Your task to perform on an android device: open app "DoorDash - Dasher" (install if not already installed) and go to login screen Image 0: 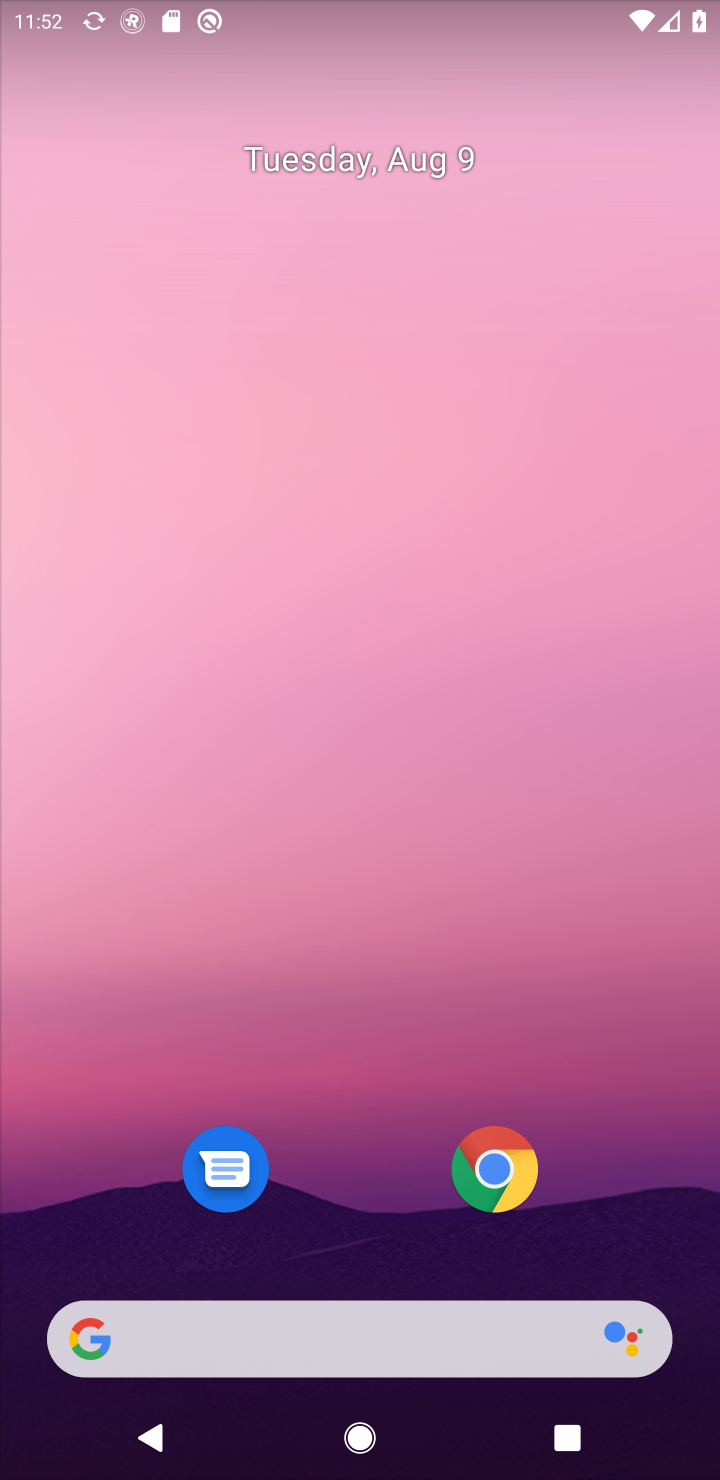
Step 0: press home button
Your task to perform on an android device: open app "DoorDash - Dasher" (install if not already installed) and go to login screen Image 1: 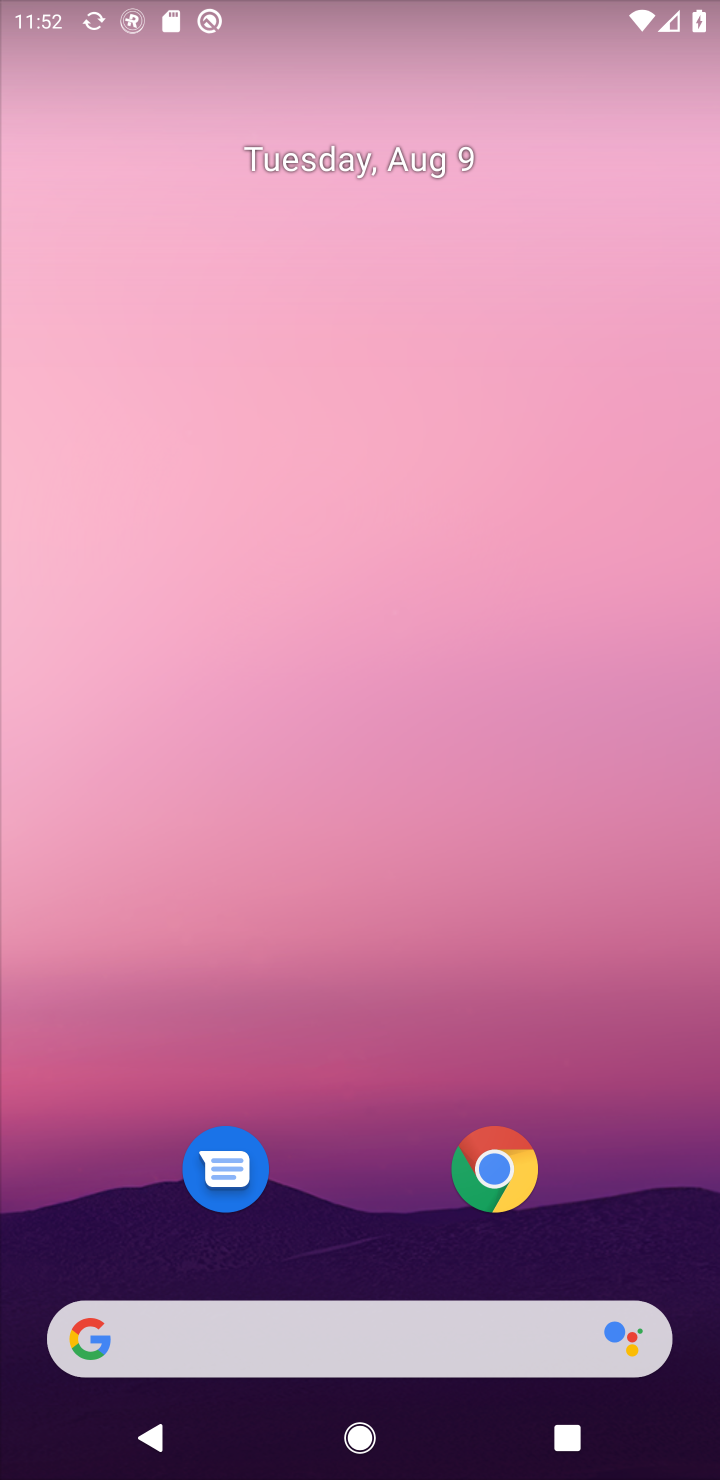
Step 1: drag from (645, 1129) to (640, 109)
Your task to perform on an android device: open app "DoorDash - Dasher" (install if not already installed) and go to login screen Image 2: 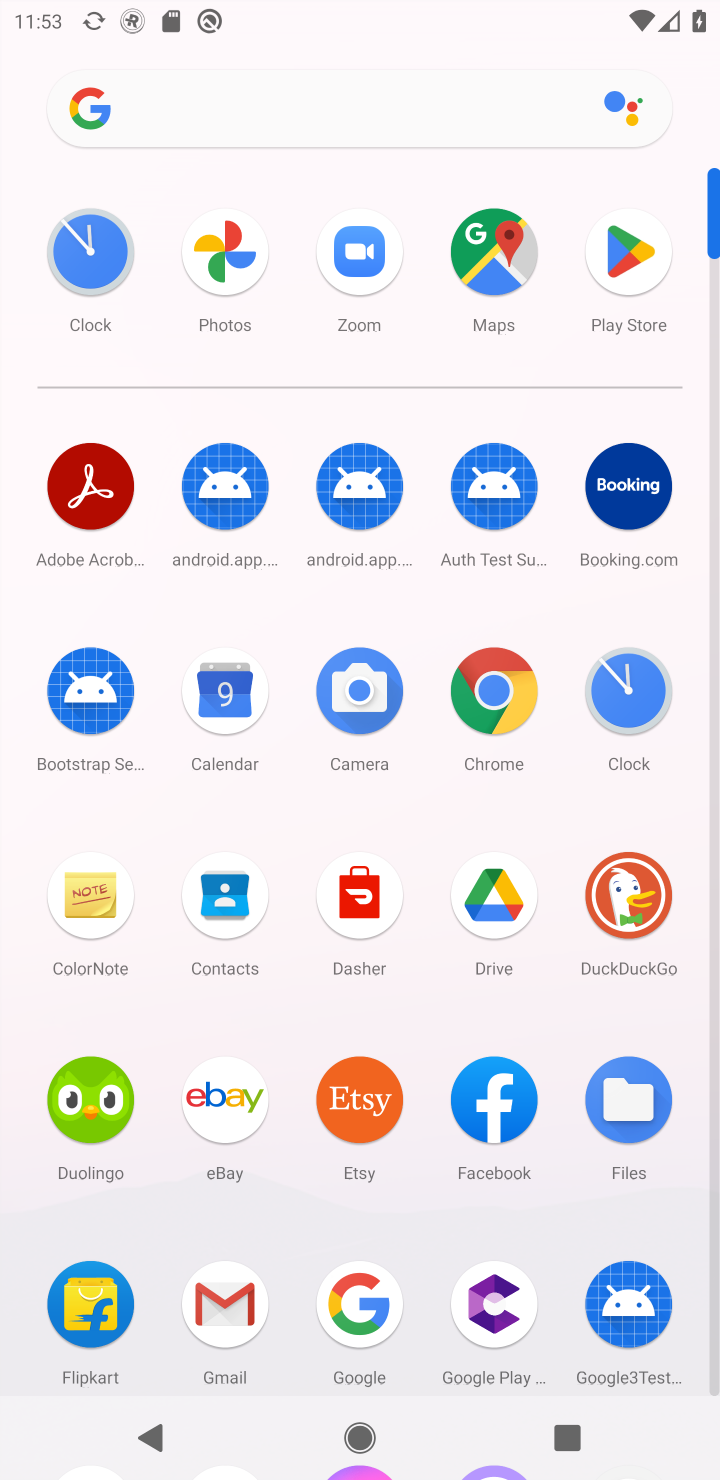
Step 2: click (628, 254)
Your task to perform on an android device: open app "DoorDash - Dasher" (install if not already installed) and go to login screen Image 3: 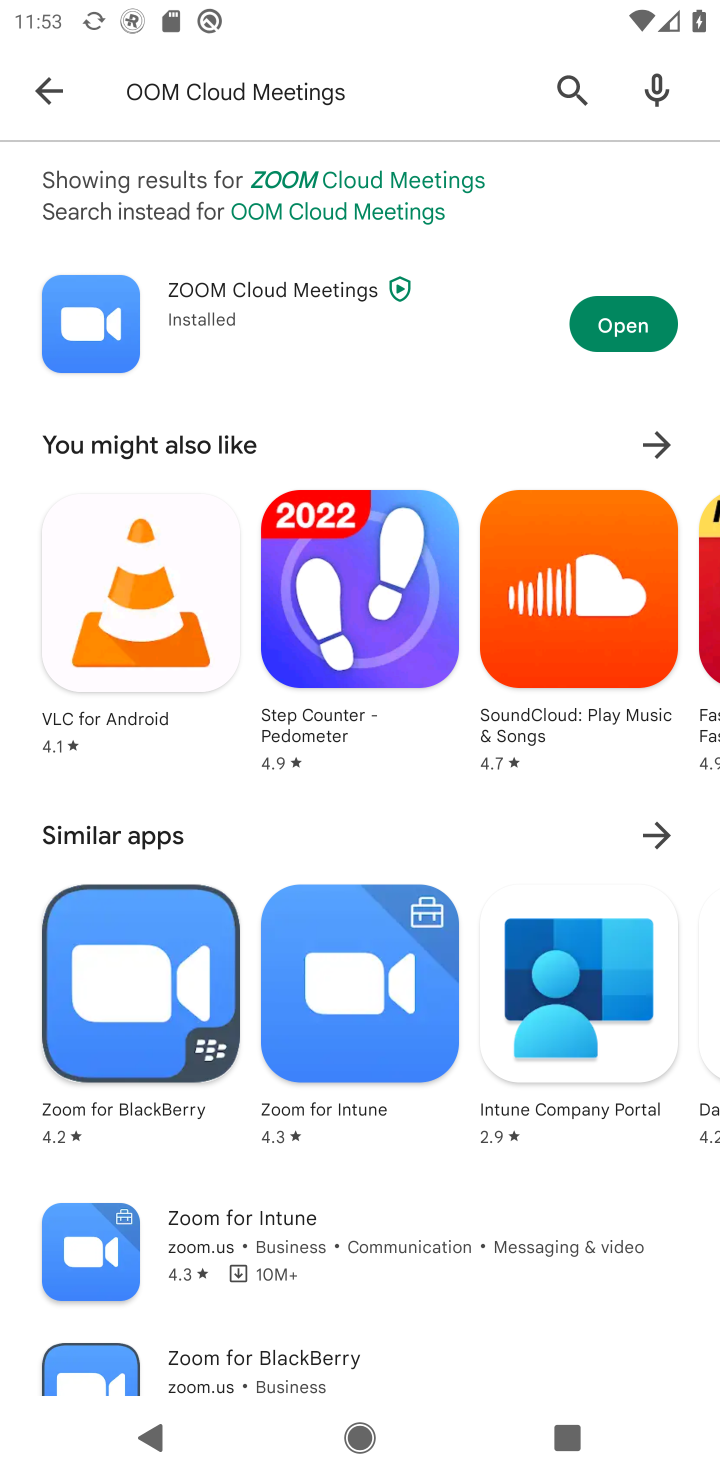
Step 3: click (569, 83)
Your task to perform on an android device: open app "DoorDash - Dasher" (install if not already installed) and go to login screen Image 4: 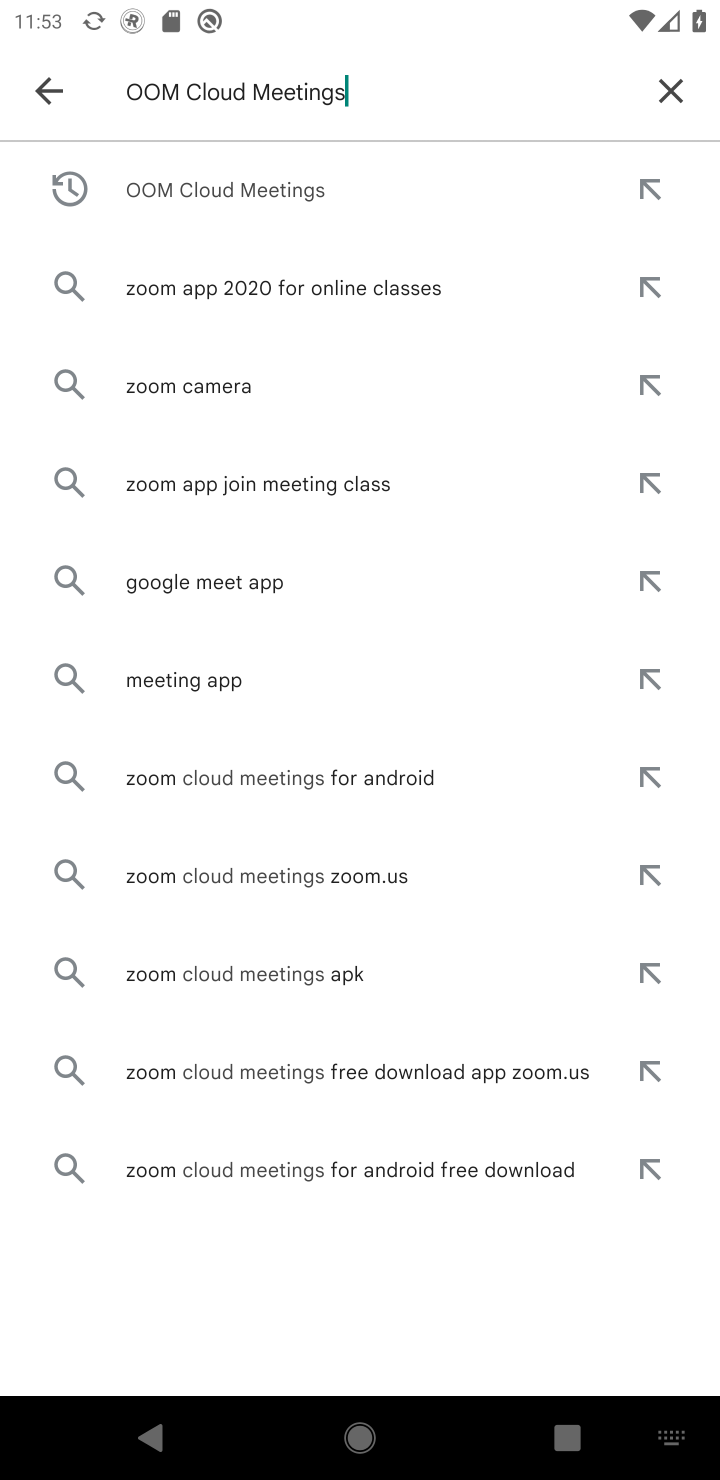
Step 4: click (668, 89)
Your task to perform on an android device: open app "DoorDash - Dasher" (install if not already installed) and go to login screen Image 5: 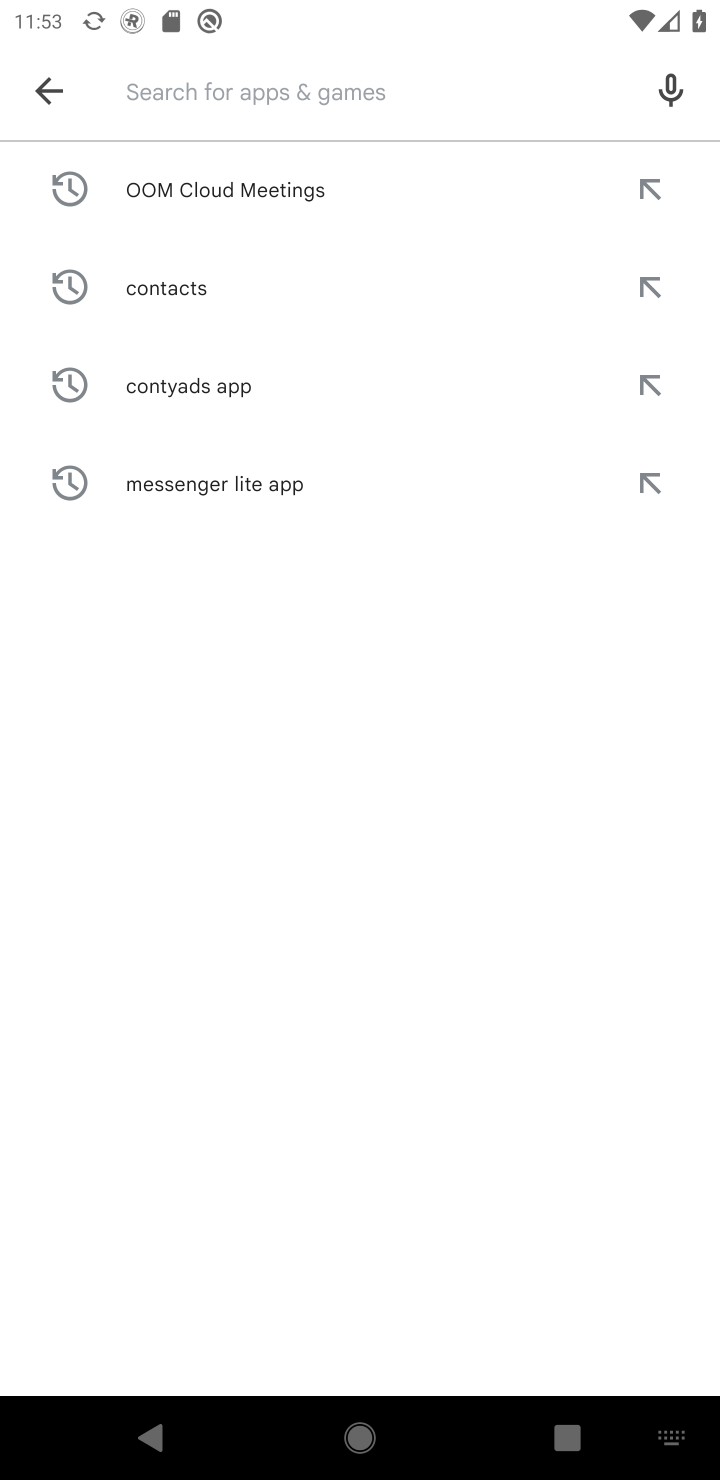
Step 5: type "doordash dasher"
Your task to perform on an android device: open app "DoorDash - Dasher" (install if not already installed) and go to login screen Image 6: 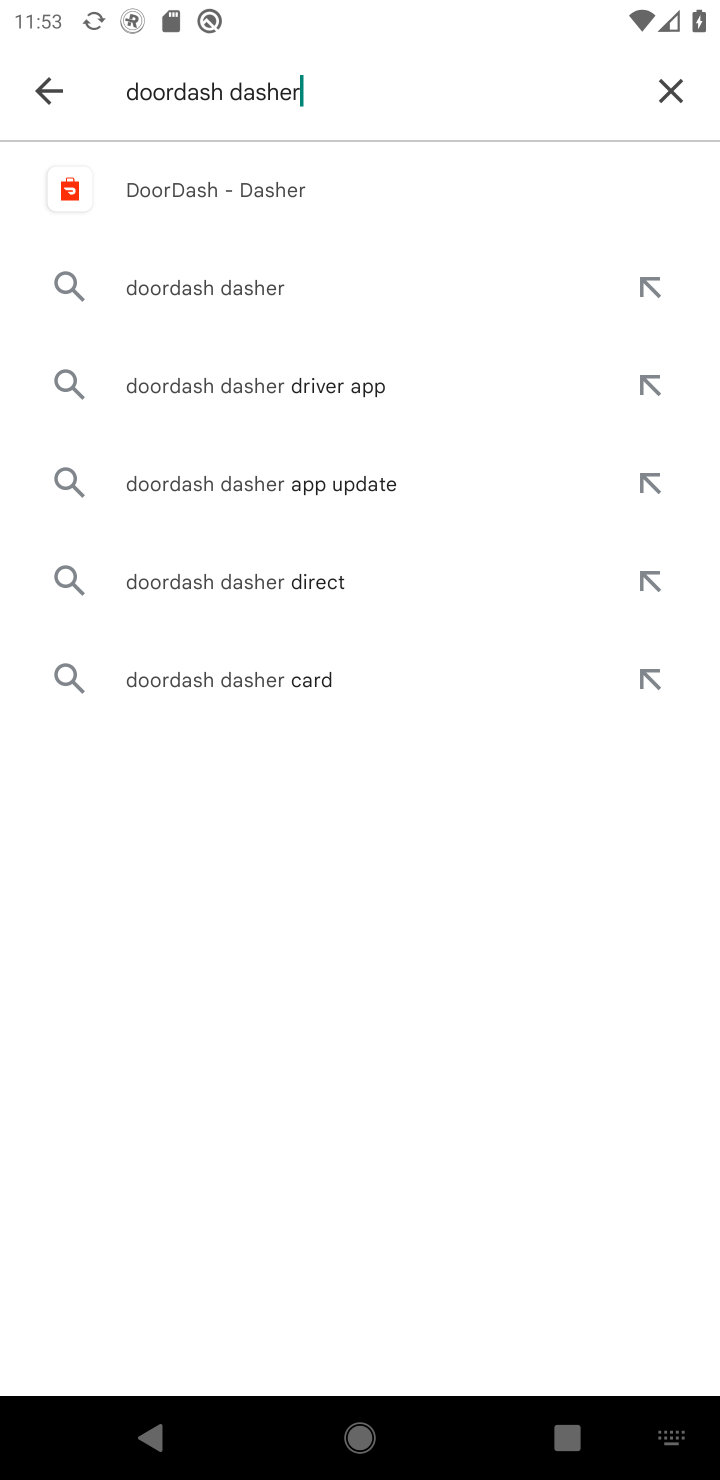
Step 6: click (255, 156)
Your task to perform on an android device: open app "DoorDash - Dasher" (install if not already installed) and go to login screen Image 7: 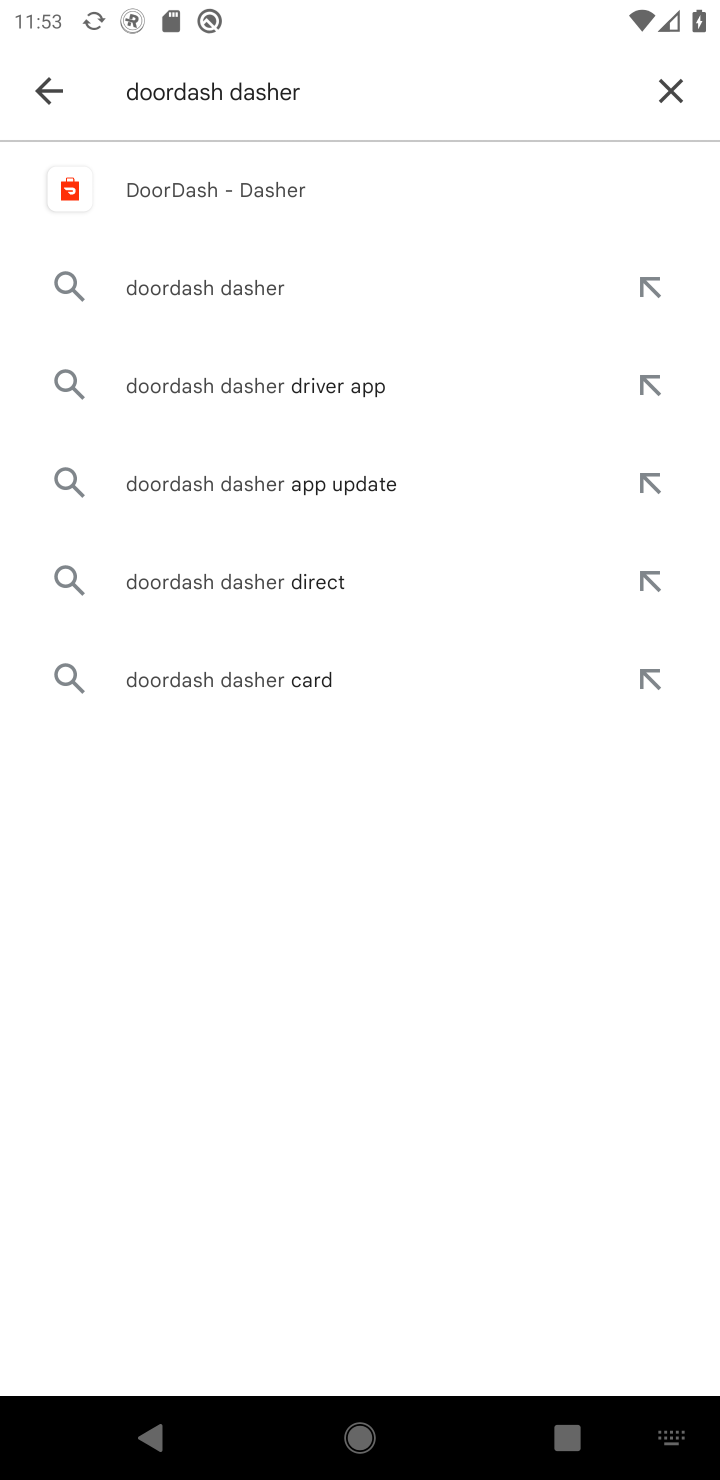
Step 7: click (282, 181)
Your task to perform on an android device: open app "DoorDash - Dasher" (install if not already installed) and go to login screen Image 8: 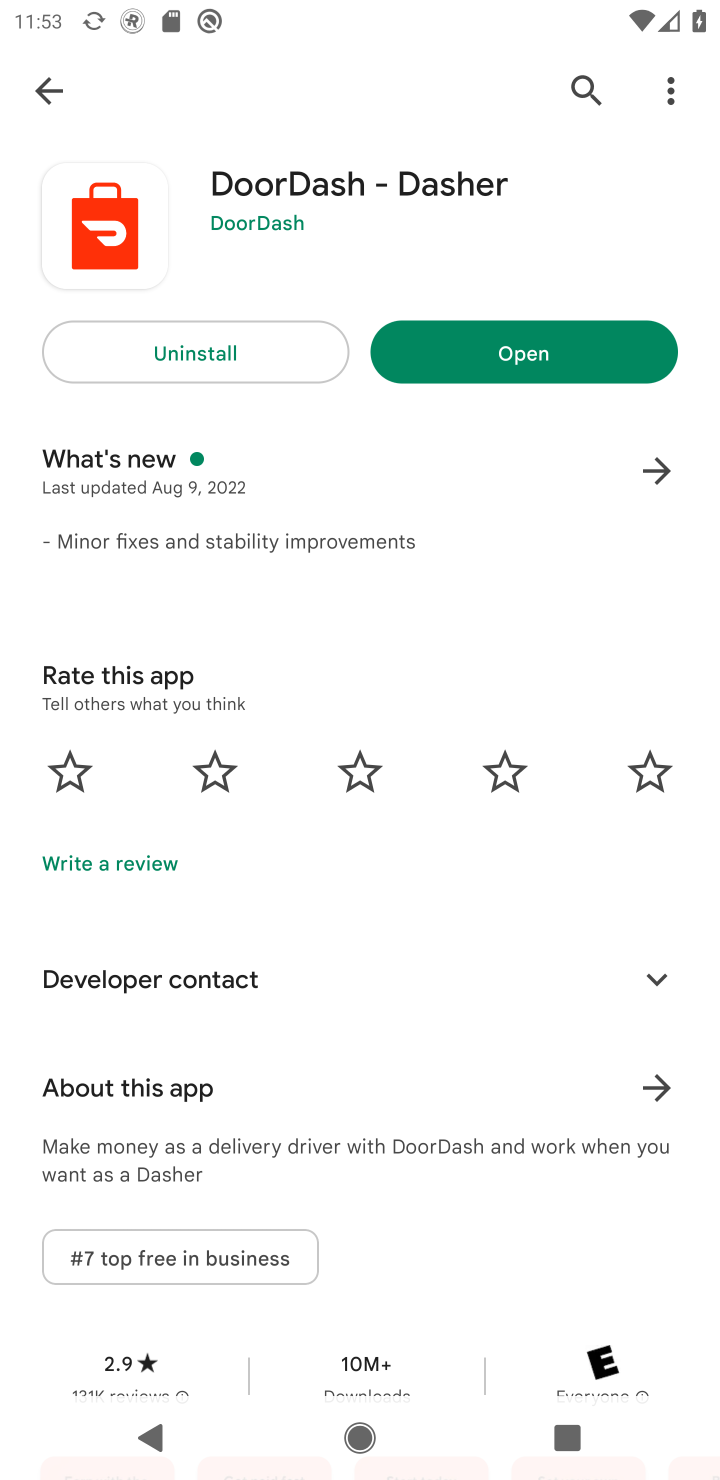
Step 8: click (560, 370)
Your task to perform on an android device: open app "DoorDash - Dasher" (install if not already installed) and go to login screen Image 9: 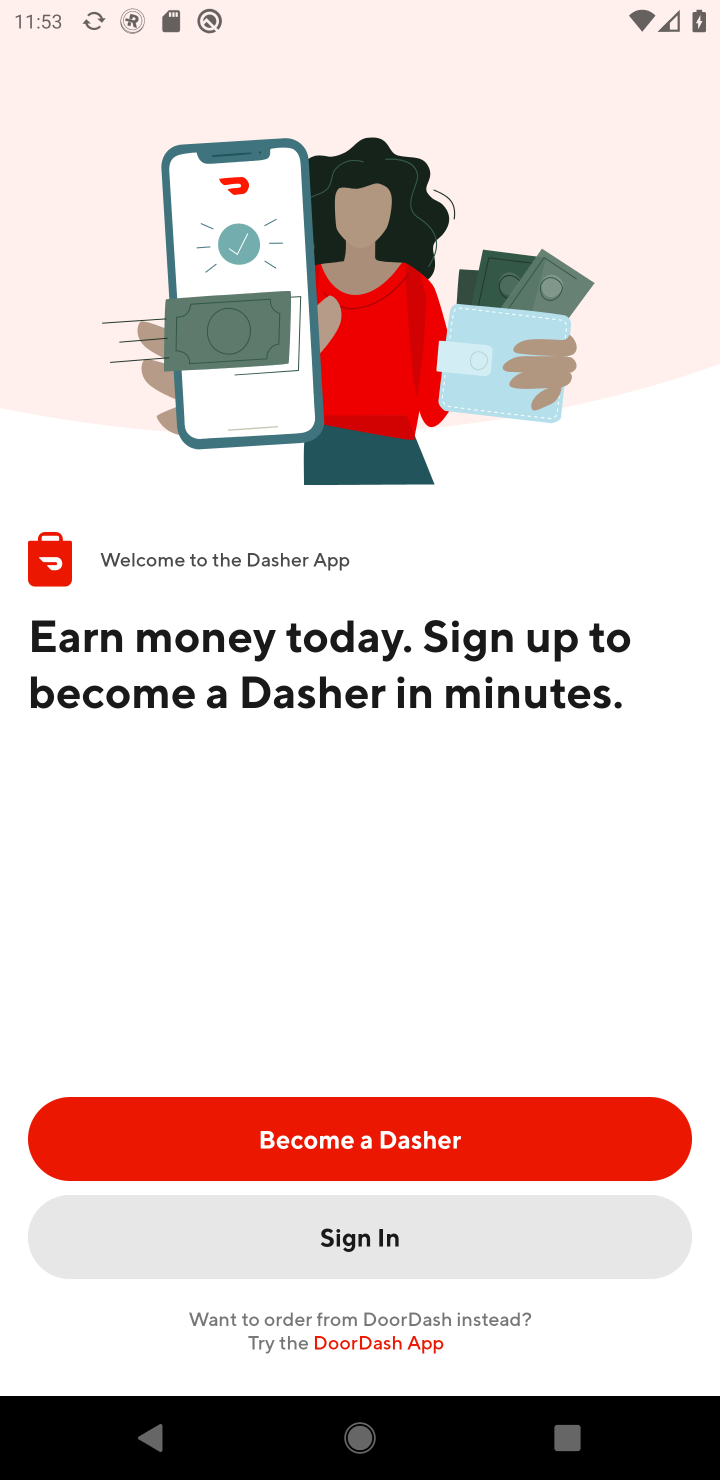
Step 9: click (538, 1237)
Your task to perform on an android device: open app "DoorDash - Dasher" (install if not already installed) and go to login screen Image 10: 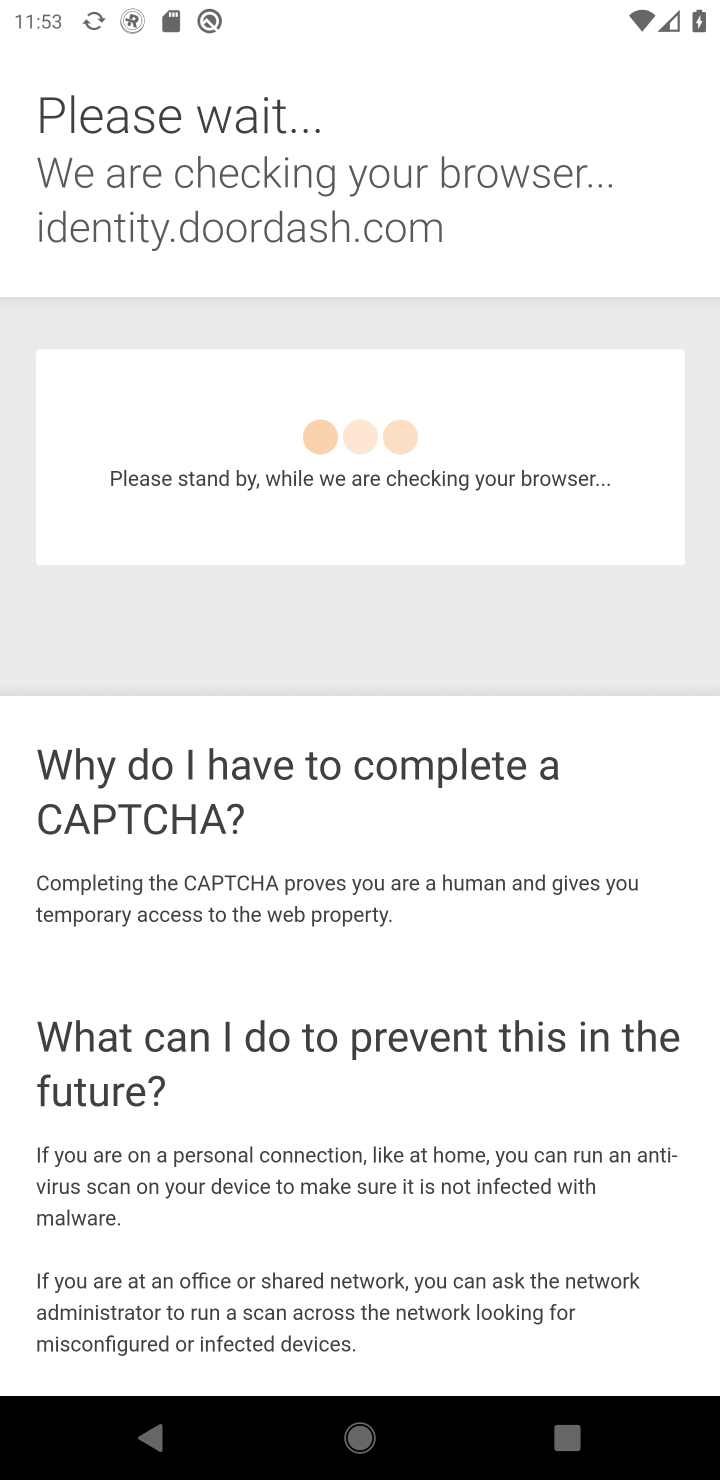
Step 10: task complete